Your task to perform on an android device: Open the calendar app, open the side menu, and click the "Day" option Image 0: 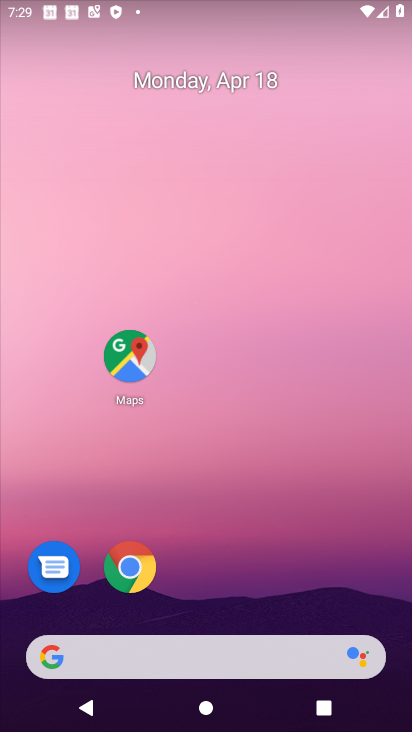
Step 0: drag from (187, 624) to (225, 73)
Your task to perform on an android device: Open the calendar app, open the side menu, and click the "Day" option Image 1: 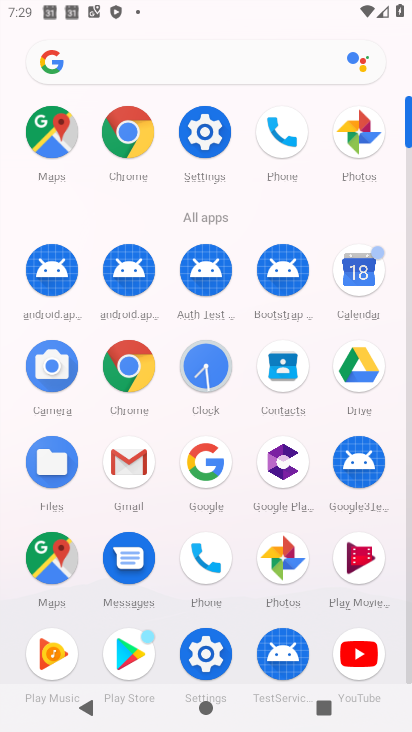
Step 1: click (350, 279)
Your task to perform on an android device: Open the calendar app, open the side menu, and click the "Day" option Image 2: 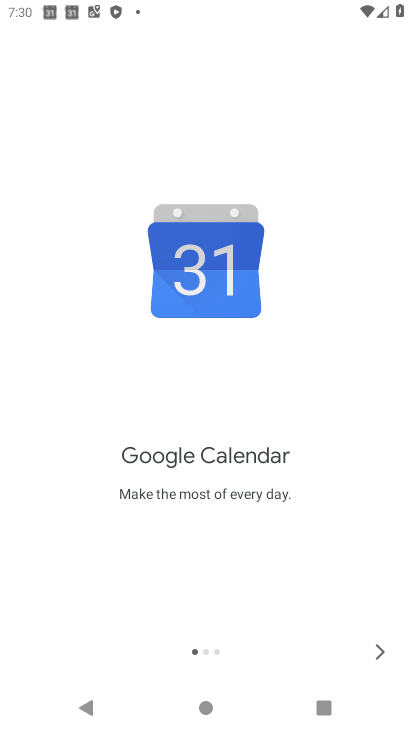
Step 2: click (383, 657)
Your task to perform on an android device: Open the calendar app, open the side menu, and click the "Day" option Image 3: 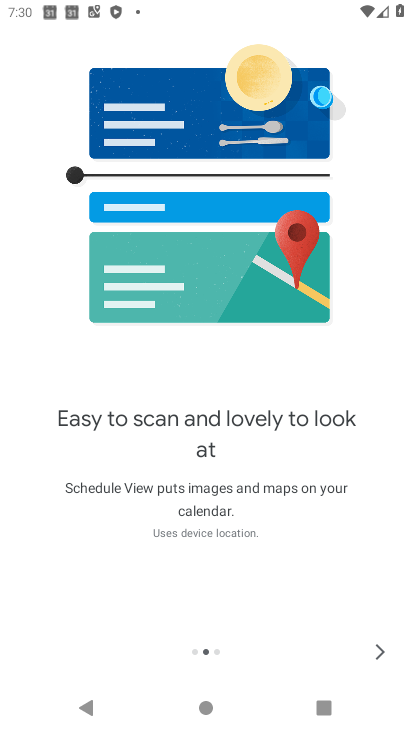
Step 3: click (389, 643)
Your task to perform on an android device: Open the calendar app, open the side menu, and click the "Day" option Image 4: 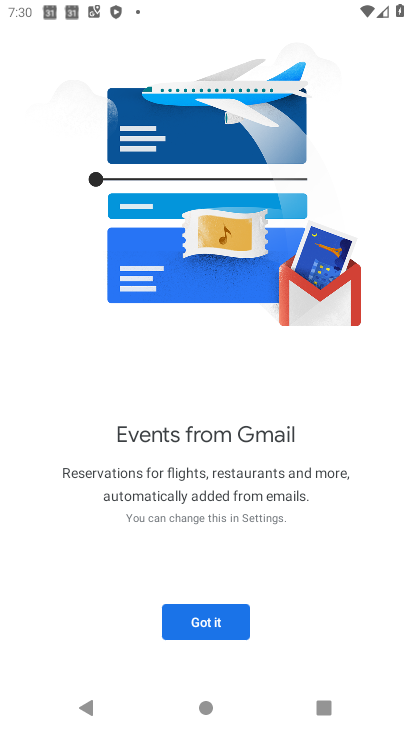
Step 4: click (221, 621)
Your task to perform on an android device: Open the calendar app, open the side menu, and click the "Day" option Image 5: 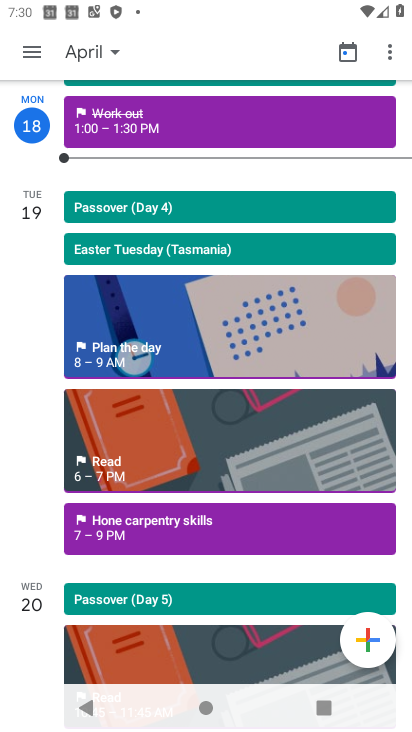
Step 5: click (23, 62)
Your task to perform on an android device: Open the calendar app, open the side menu, and click the "Day" option Image 6: 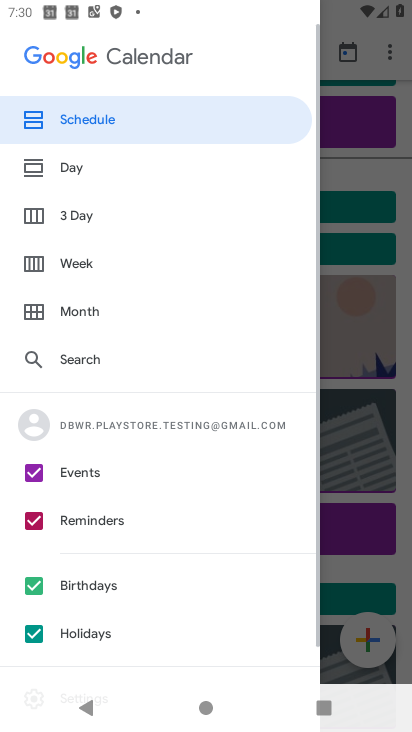
Step 6: click (92, 169)
Your task to perform on an android device: Open the calendar app, open the side menu, and click the "Day" option Image 7: 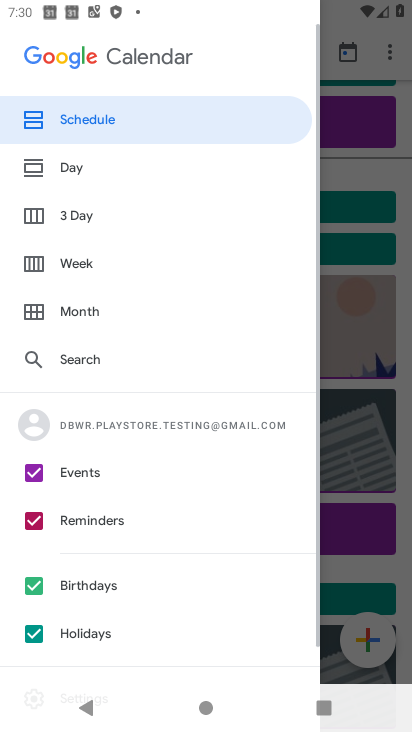
Step 7: click (75, 169)
Your task to perform on an android device: Open the calendar app, open the side menu, and click the "Day" option Image 8: 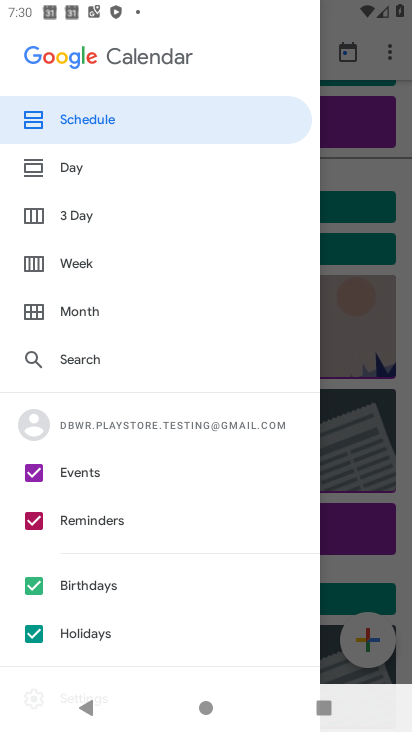
Step 8: click (81, 158)
Your task to perform on an android device: Open the calendar app, open the side menu, and click the "Day" option Image 9: 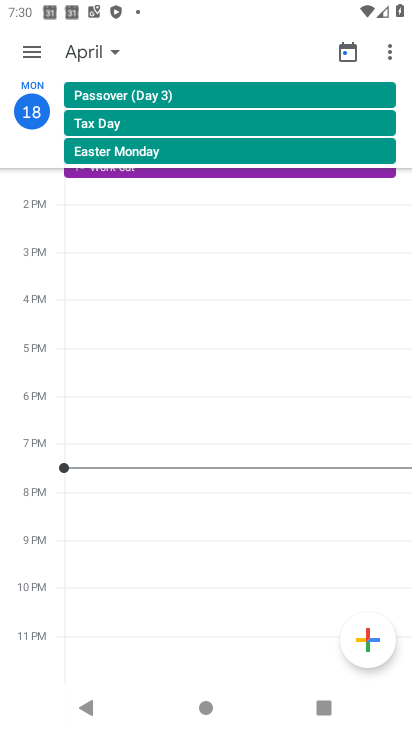
Step 9: task complete